Your task to perform on an android device: Open calendar and show me the second week of next month Image 0: 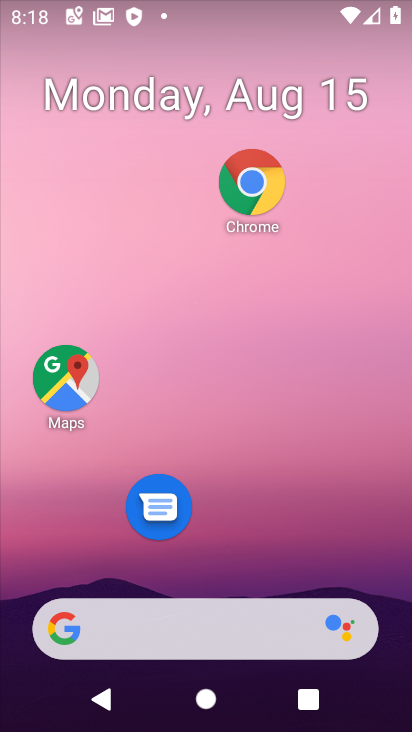
Step 0: drag from (260, 597) to (199, 142)
Your task to perform on an android device: Open calendar and show me the second week of next month Image 1: 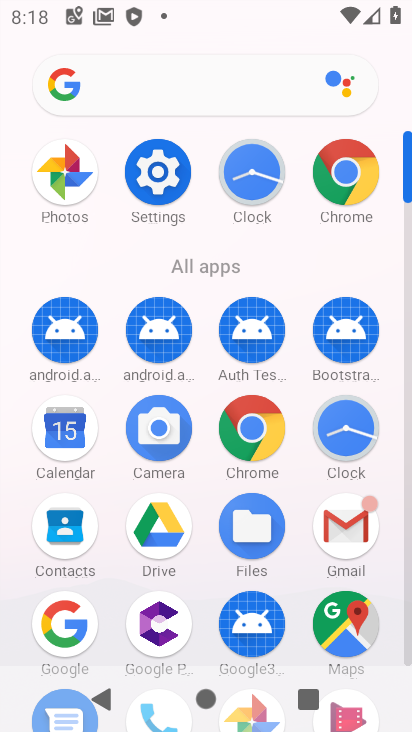
Step 1: click (72, 458)
Your task to perform on an android device: Open calendar and show me the second week of next month Image 2: 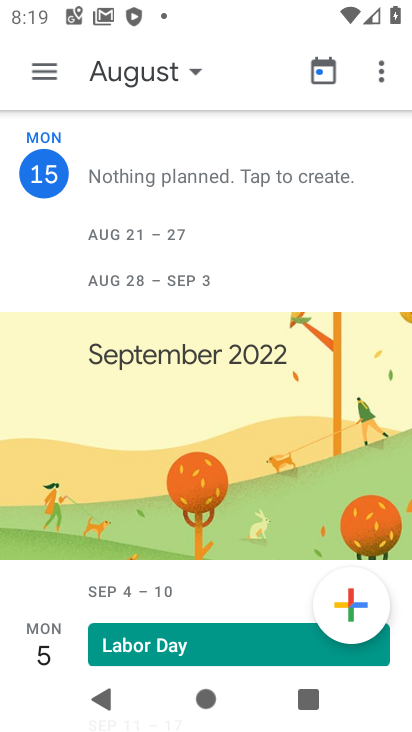
Step 2: task complete